Your task to perform on an android device: turn off location Image 0: 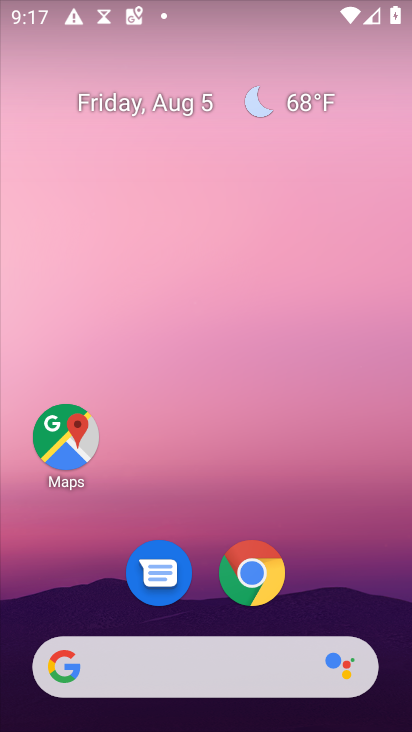
Step 0: drag from (172, 676) to (167, 174)
Your task to perform on an android device: turn off location Image 1: 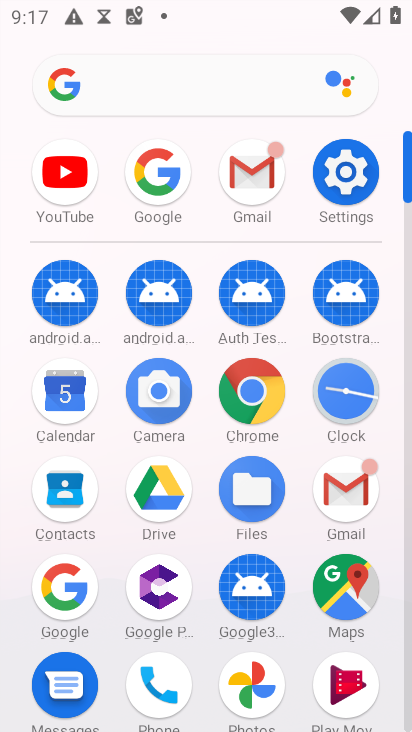
Step 1: click (345, 172)
Your task to perform on an android device: turn off location Image 2: 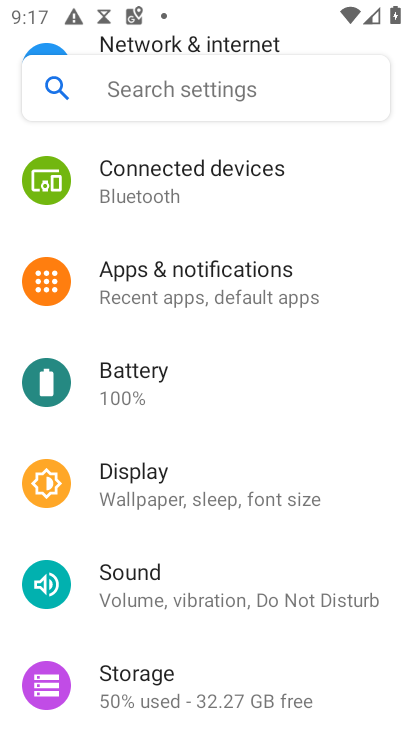
Step 2: drag from (194, 565) to (180, 387)
Your task to perform on an android device: turn off location Image 3: 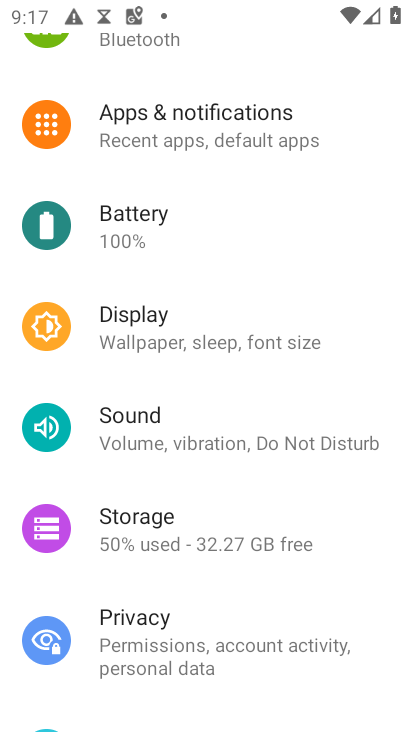
Step 3: drag from (184, 573) to (178, 359)
Your task to perform on an android device: turn off location Image 4: 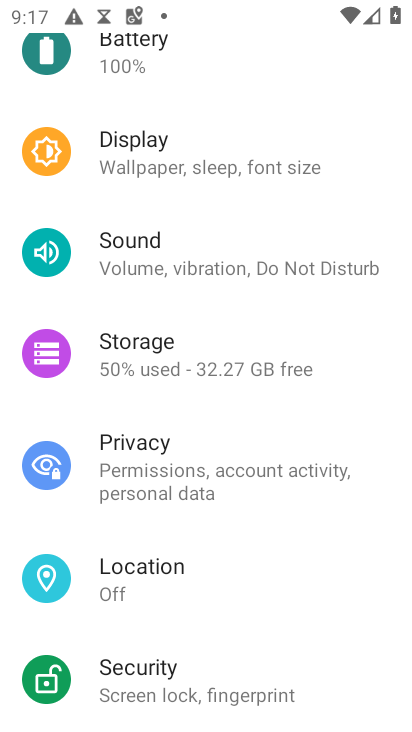
Step 4: drag from (217, 602) to (209, 370)
Your task to perform on an android device: turn off location Image 5: 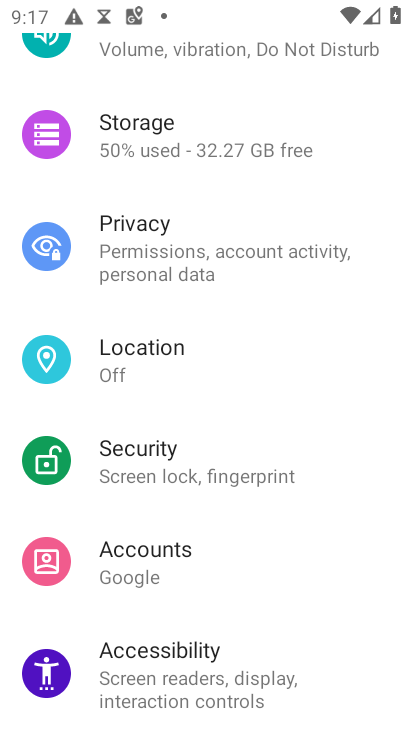
Step 5: click (185, 359)
Your task to perform on an android device: turn off location Image 6: 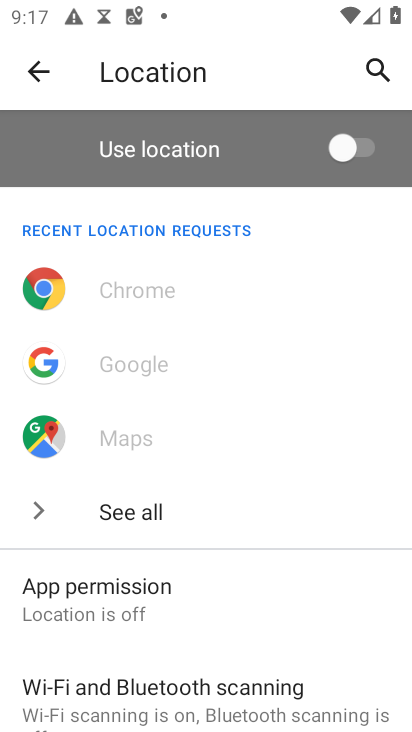
Step 6: task complete